Your task to perform on an android device: Open Google Chrome Image 0: 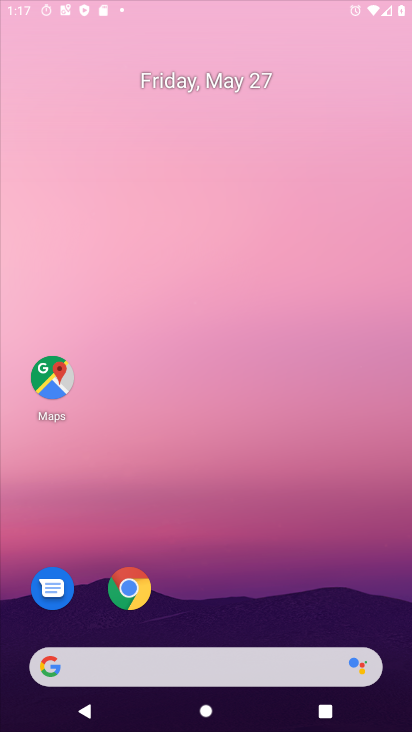
Step 0: press home button
Your task to perform on an android device: Open Google Chrome Image 1: 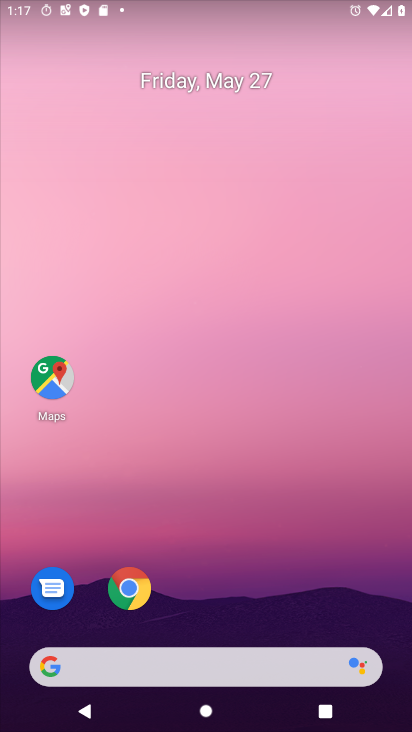
Step 1: click (126, 580)
Your task to perform on an android device: Open Google Chrome Image 2: 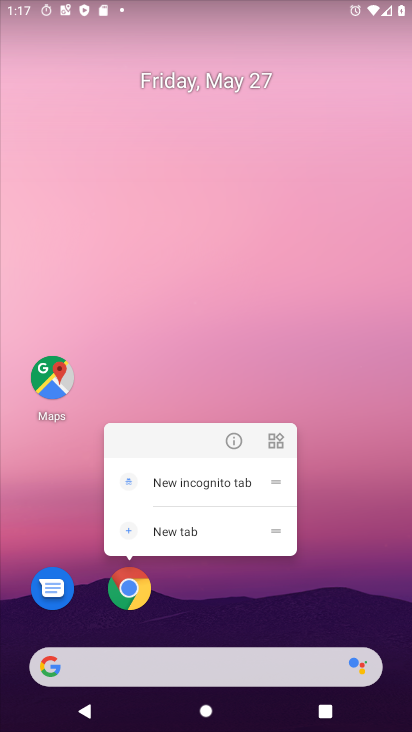
Step 2: click (126, 580)
Your task to perform on an android device: Open Google Chrome Image 3: 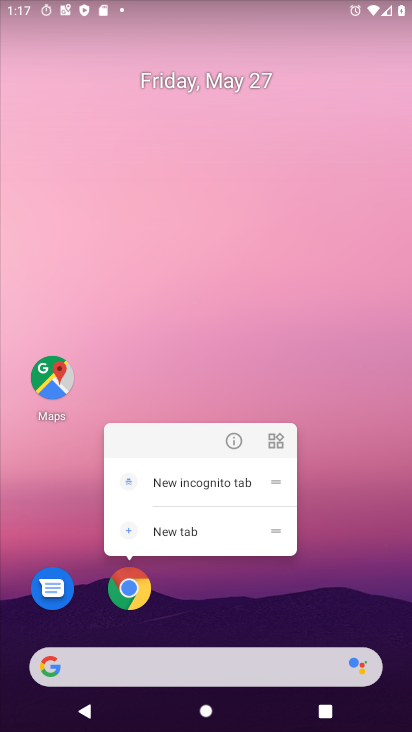
Step 3: click (126, 580)
Your task to perform on an android device: Open Google Chrome Image 4: 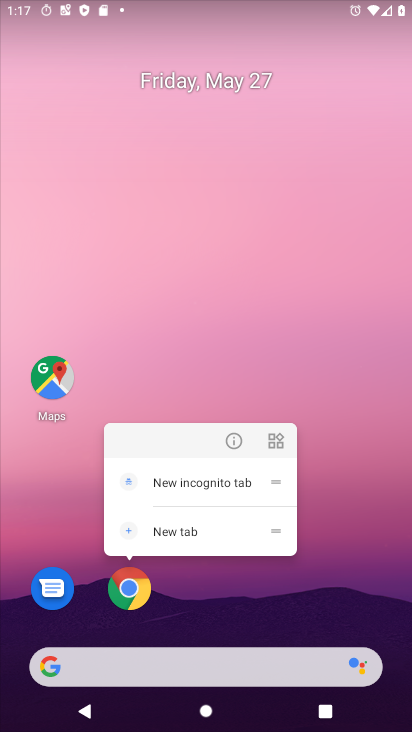
Step 4: click (125, 583)
Your task to perform on an android device: Open Google Chrome Image 5: 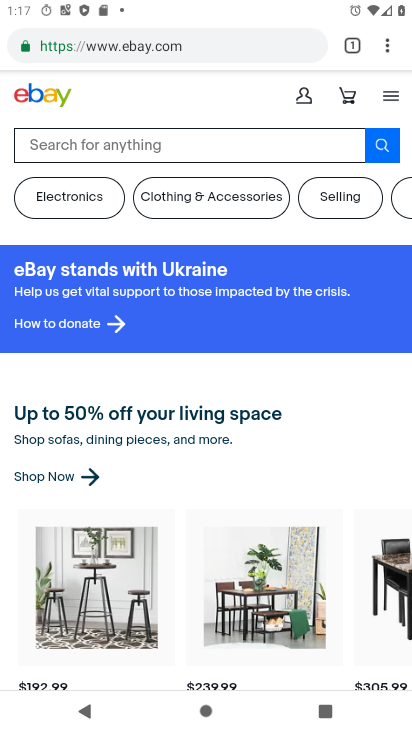
Step 5: click (351, 38)
Your task to perform on an android device: Open Google Chrome Image 6: 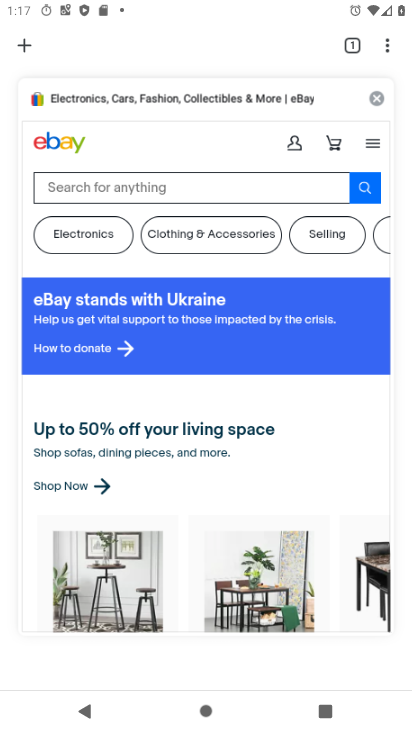
Step 6: click (376, 94)
Your task to perform on an android device: Open Google Chrome Image 7: 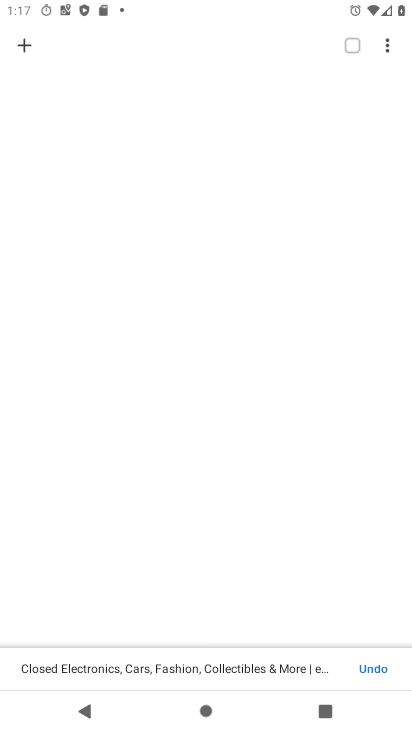
Step 7: click (26, 49)
Your task to perform on an android device: Open Google Chrome Image 8: 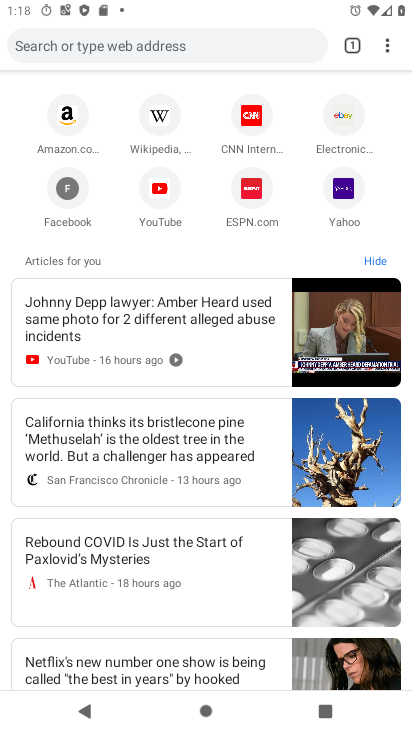
Step 8: task complete